Your task to perform on an android device: Turn off the flashlight Image 0: 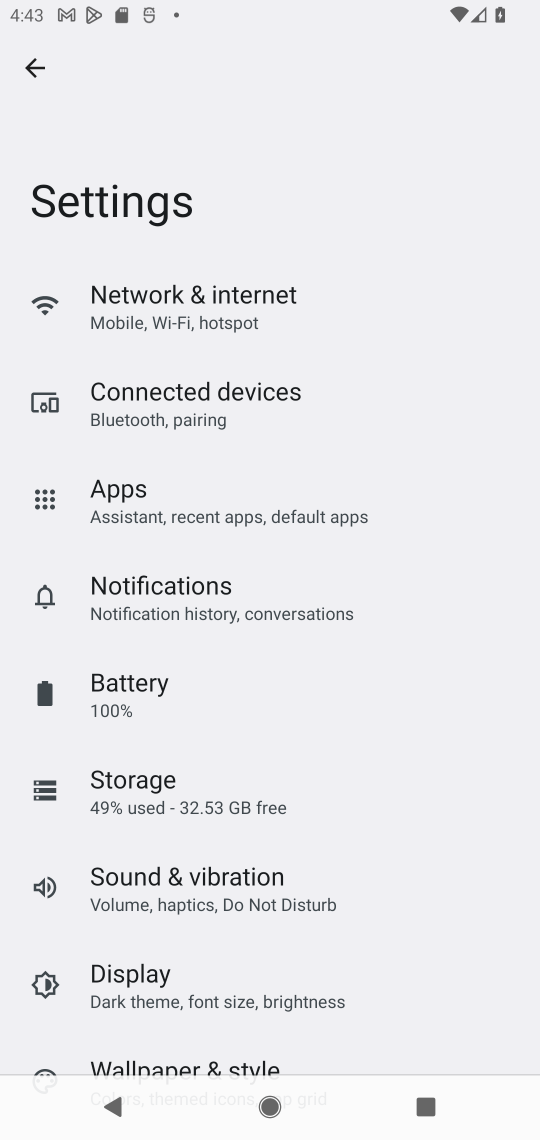
Step 0: task impossible